Your task to perform on an android device: open app "Fetch Rewards" Image 0: 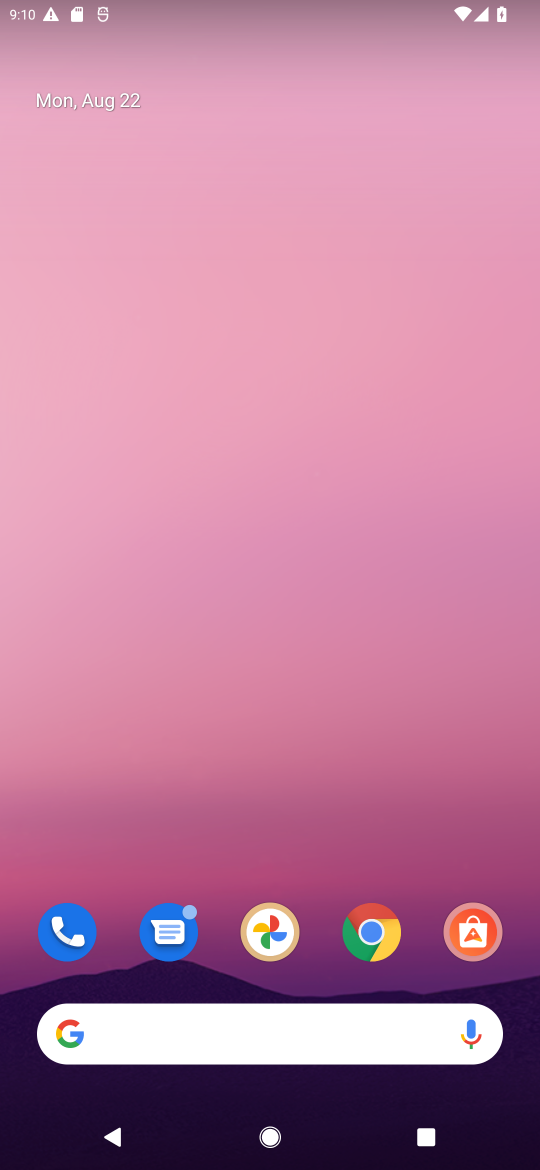
Step 0: drag from (319, 978) to (344, 162)
Your task to perform on an android device: open app "Fetch Rewards" Image 1: 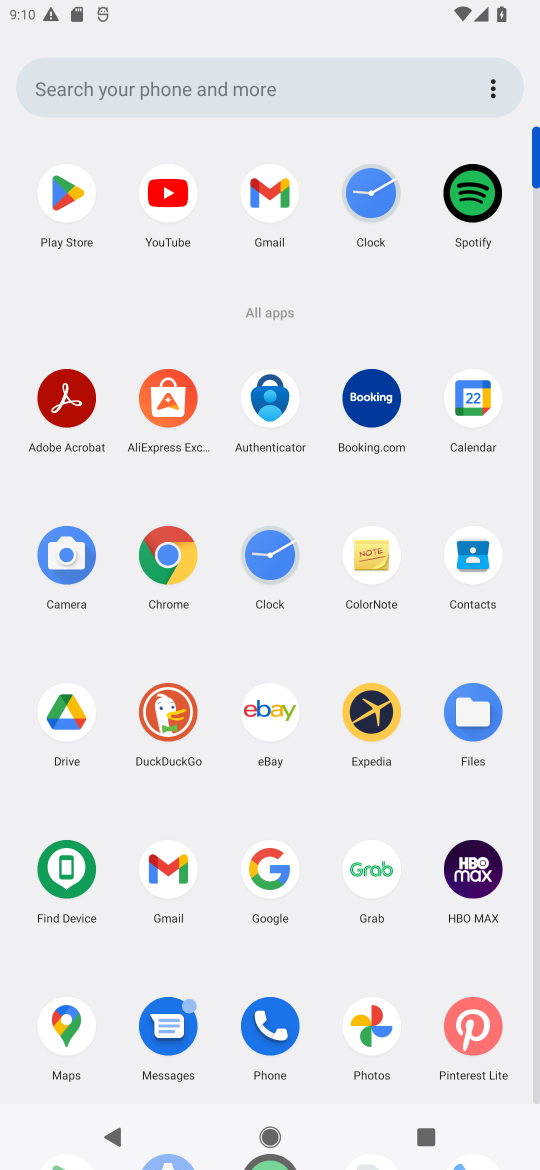
Step 1: click (51, 199)
Your task to perform on an android device: open app "Fetch Rewards" Image 2: 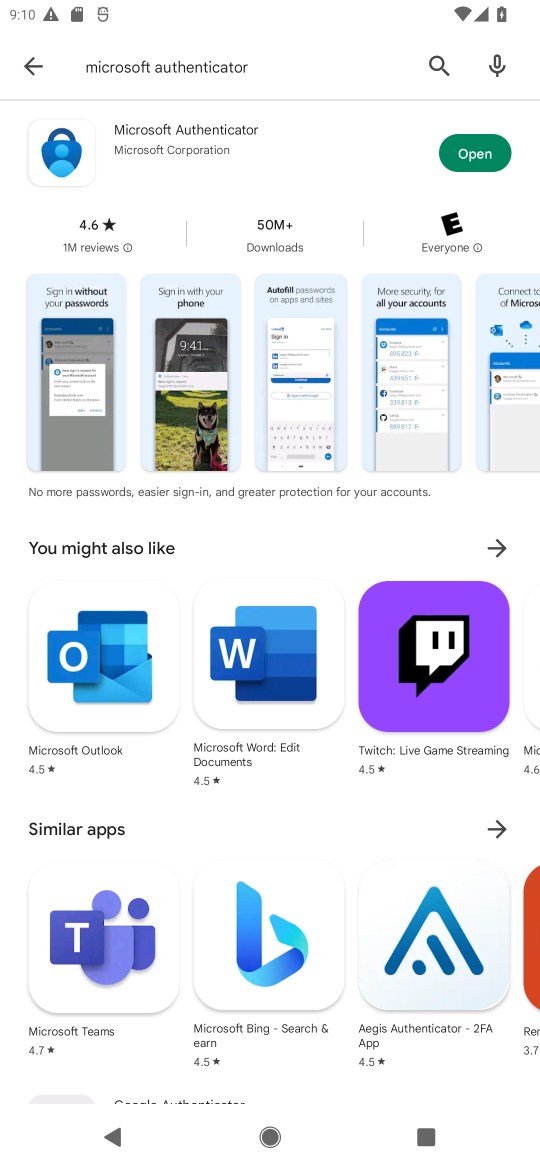
Step 2: click (449, 64)
Your task to perform on an android device: open app "Fetch Rewards" Image 3: 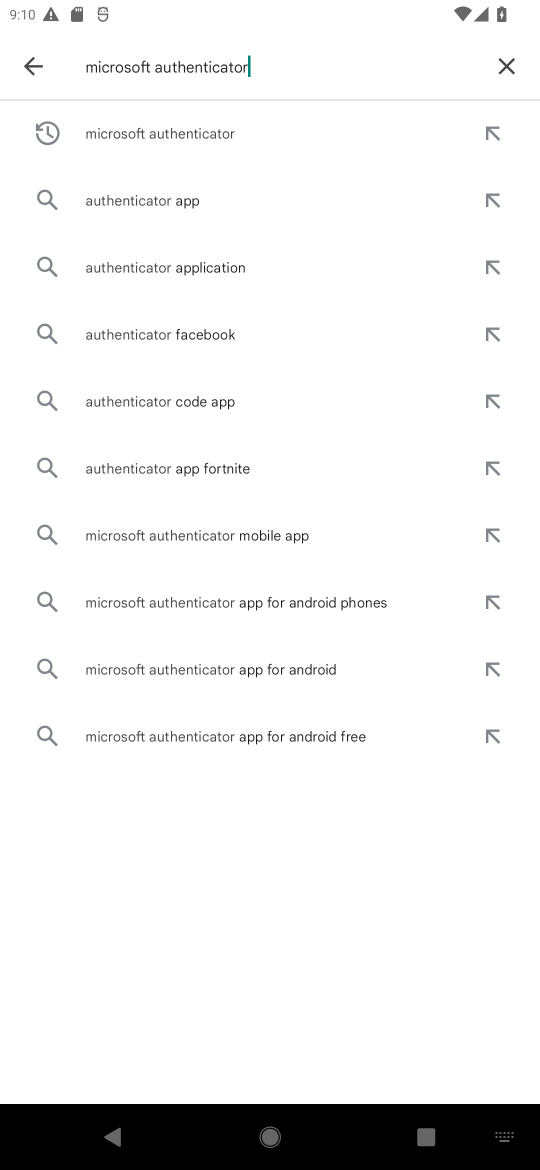
Step 3: click (522, 58)
Your task to perform on an android device: open app "Fetch Rewards" Image 4: 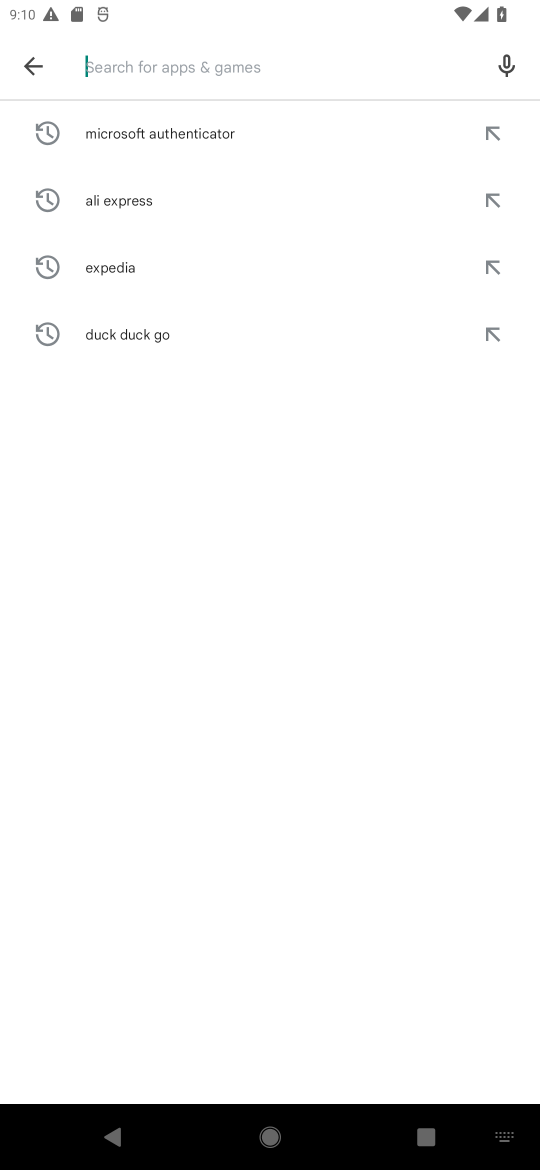
Step 4: type "fetch reward"
Your task to perform on an android device: open app "Fetch Rewards" Image 5: 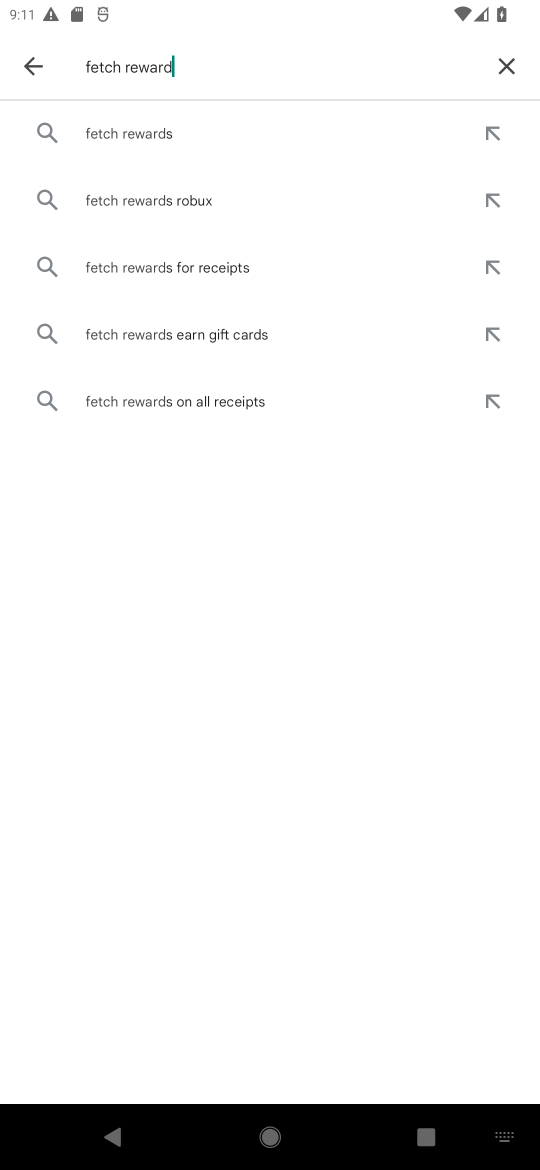
Step 5: click (198, 142)
Your task to perform on an android device: open app "Fetch Rewards" Image 6: 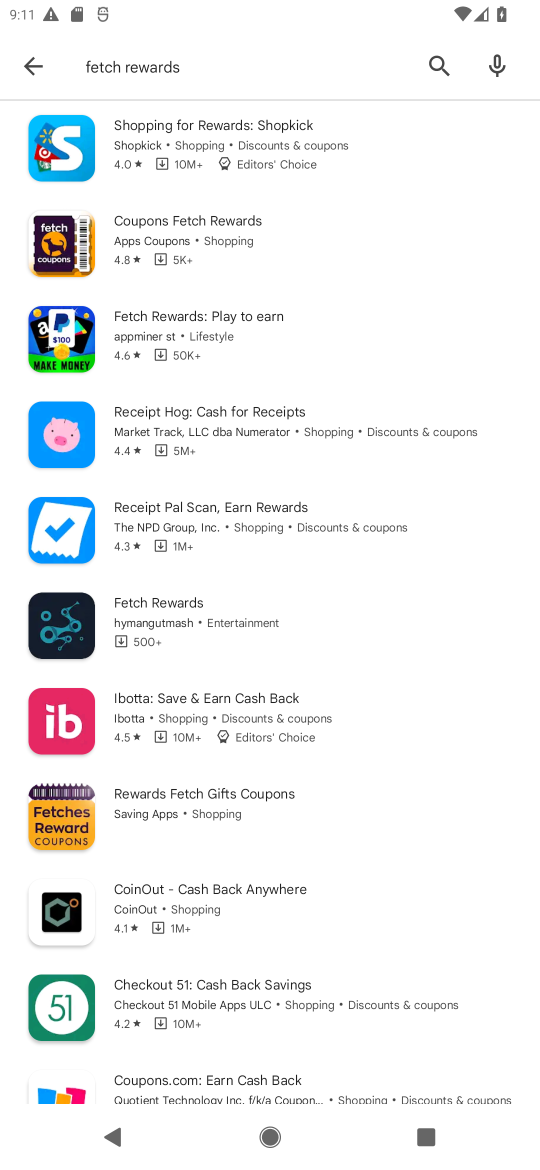
Step 6: task complete